Your task to perform on an android device: Open the phone app and click the voicemail tab. Image 0: 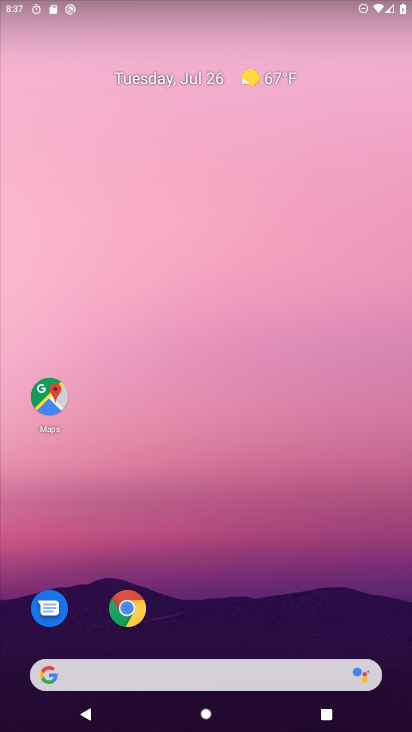
Step 0: drag from (223, 641) to (258, 12)
Your task to perform on an android device: Open the phone app and click the voicemail tab. Image 1: 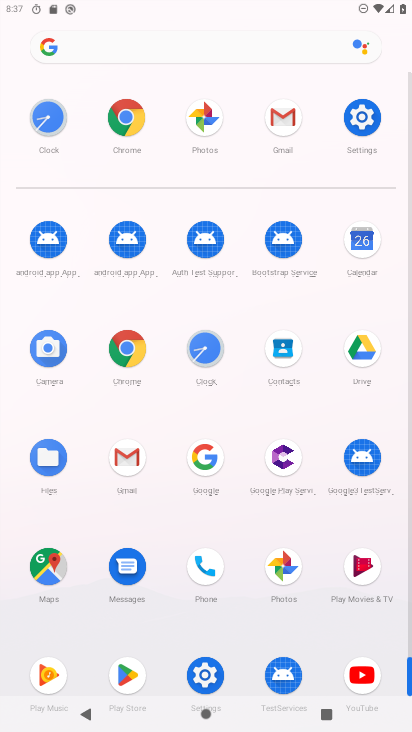
Step 1: click (213, 578)
Your task to perform on an android device: Open the phone app and click the voicemail tab. Image 2: 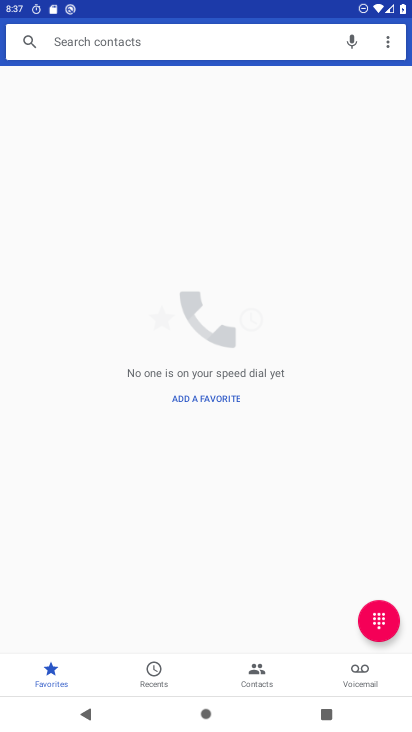
Step 2: click (368, 673)
Your task to perform on an android device: Open the phone app and click the voicemail tab. Image 3: 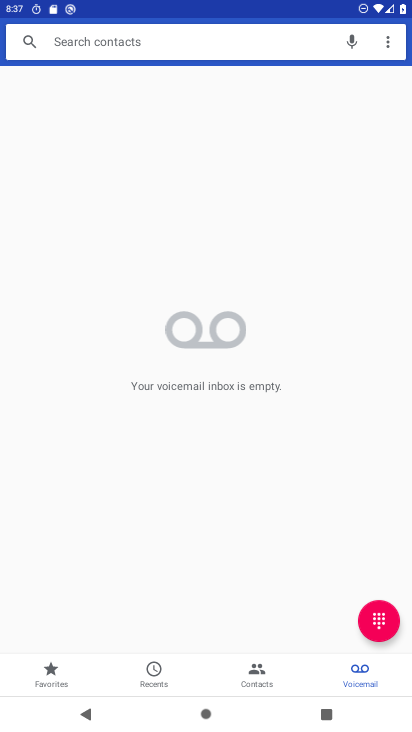
Step 3: task complete